Your task to perform on an android device: turn vacation reply on in the gmail app Image 0: 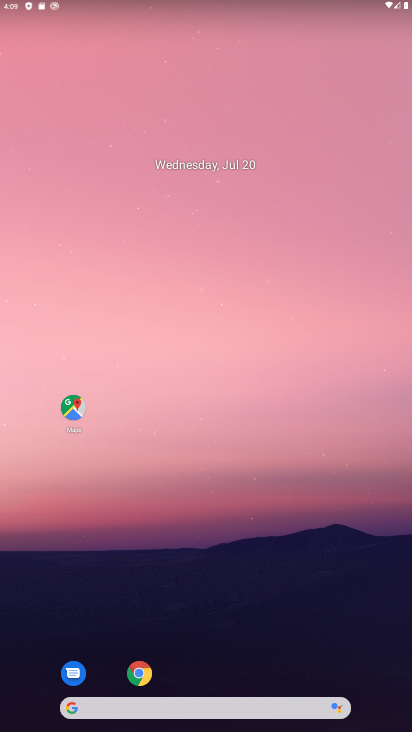
Step 0: drag from (214, 533) to (175, 127)
Your task to perform on an android device: turn vacation reply on in the gmail app Image 1: 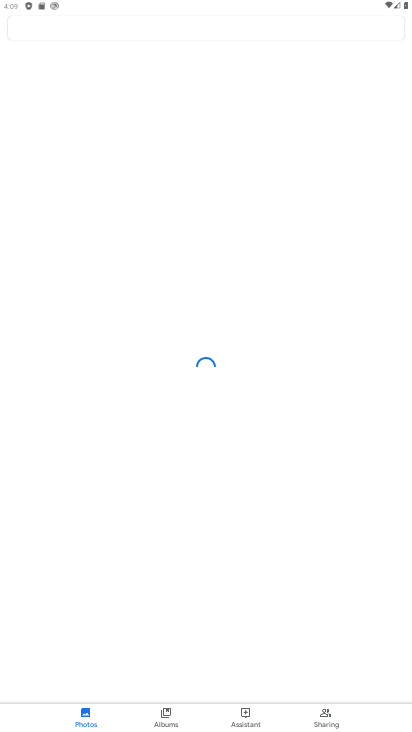
Step 1: press home button
Your task to perform on an android device: turn vacation reply on in the gmail app Image 2: 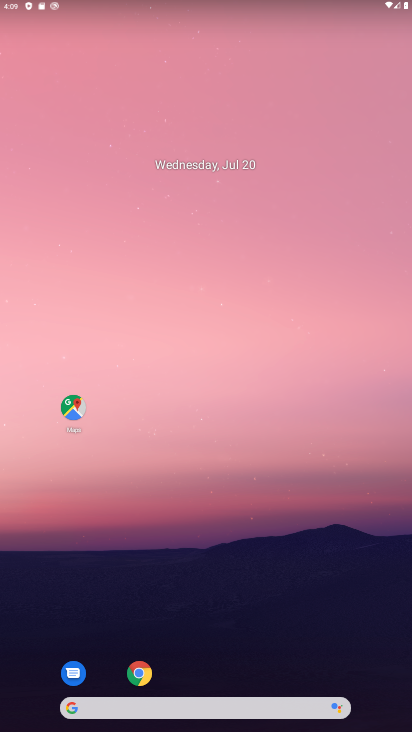
Step 2: drag from (338, 618) to (304, 172)
Your task to perform on an android device: turn vacation reply on in the gmail app Image 3: 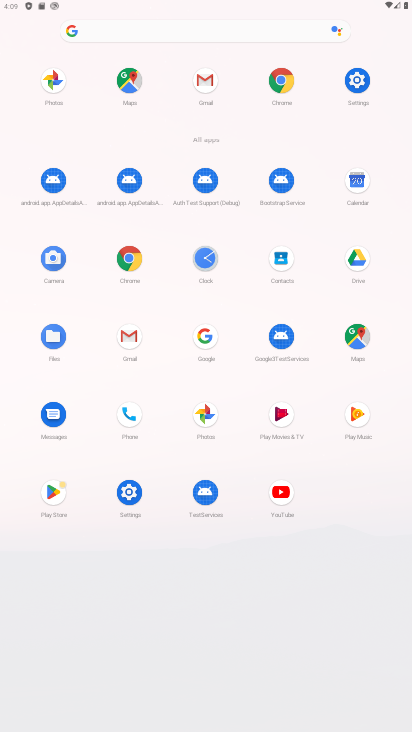
Step 3: click (136, 341)
Your task to perform on an android device: turn vacation reply on in the gmail app Image 4: 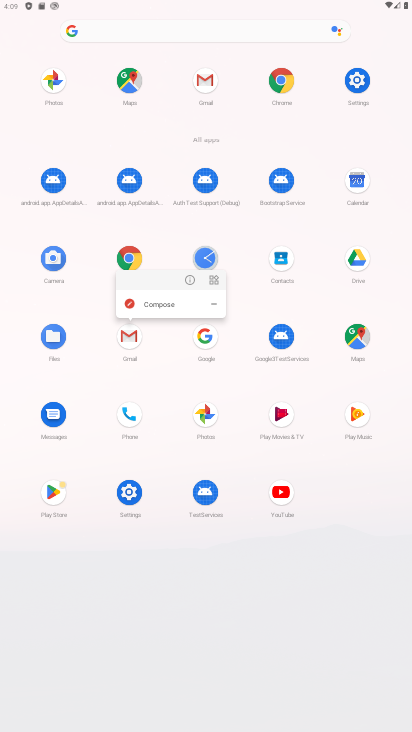
Step 4: click (130, 330)
Your task to perform on an android device: turn vacation reply on in the gmail app Image 5: 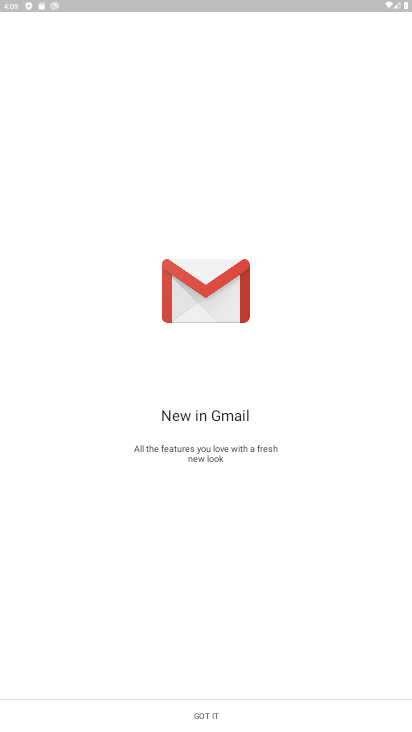
Step 5: click (208, 706)
Your task to perform on an android device: turn vacation reply on in the gmail app Image 6: 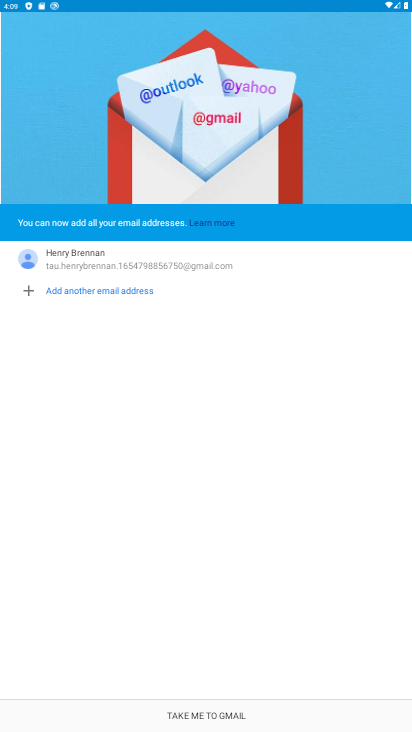
Step 6: click (241, 716)
Your task to perform on an android device: turn vacation reply on in the gmail app Image 7: 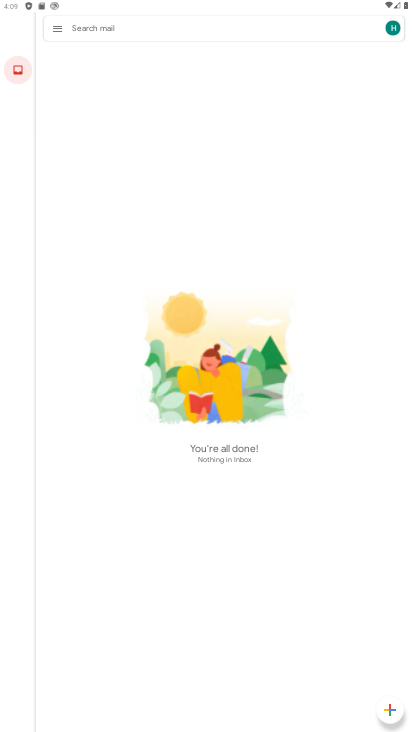
Step 7: click (51, 35)
Your task to perform on an android device: turn vacation reply on in the gmail app Image 8: 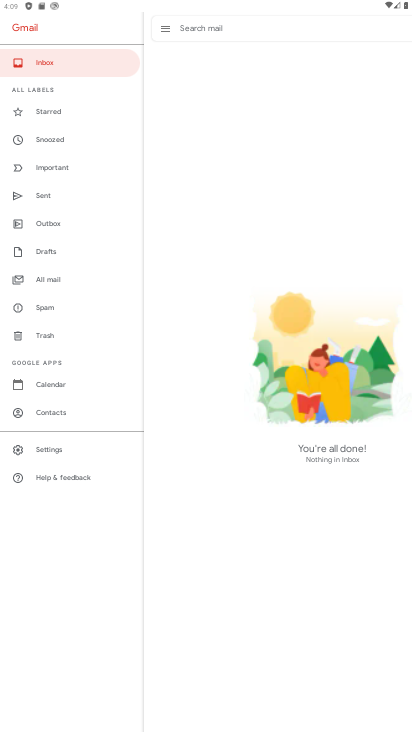
Step 8: click (43, 443)
Your task to perform on an android device: turn vacation reply on in the gmail app Image 9: 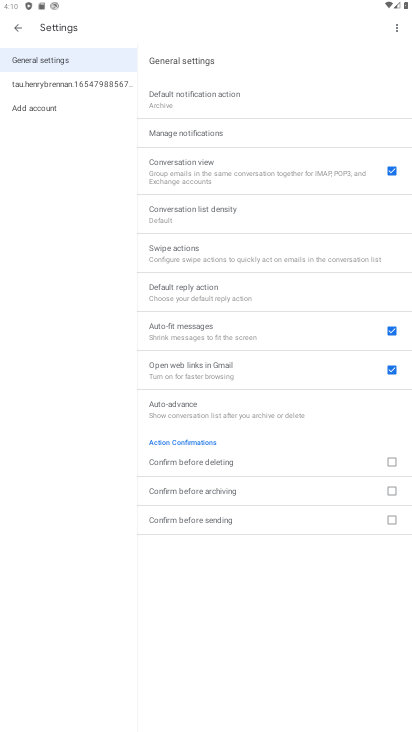
Step 9: drag from (204, 122) to (208, 352)
Your task to perform on an android device: turn vacation reply on in the gmail app Image 10: 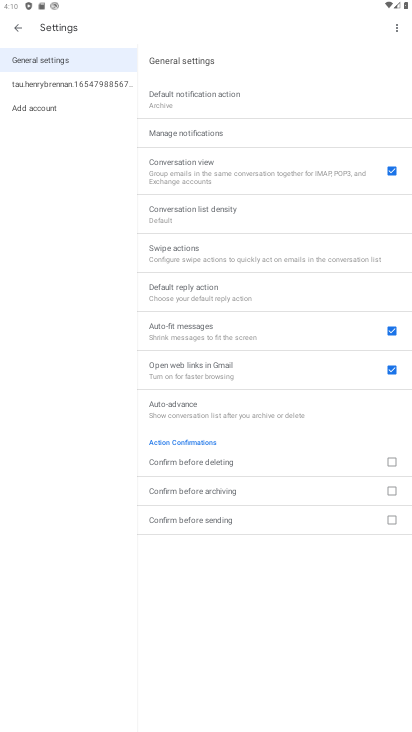
Step 10: click (51, 75)
Your task to perform on an android device: turn vacation reply on in the gmail app Image 11: 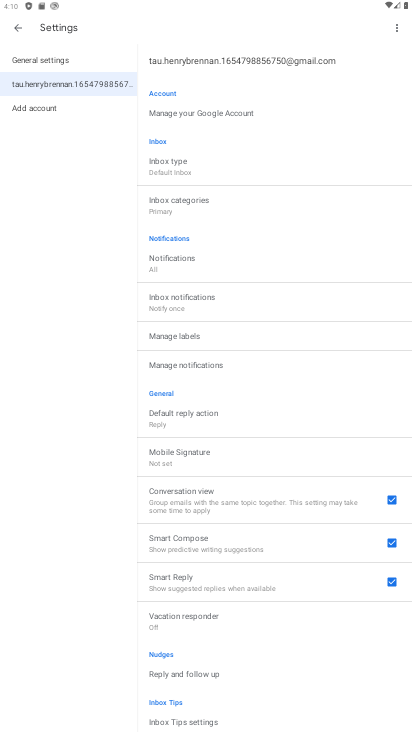
Step 11: click (192, 607)
Your task to perform on an android device: turn vacation reply on in the gmail app Image 12: 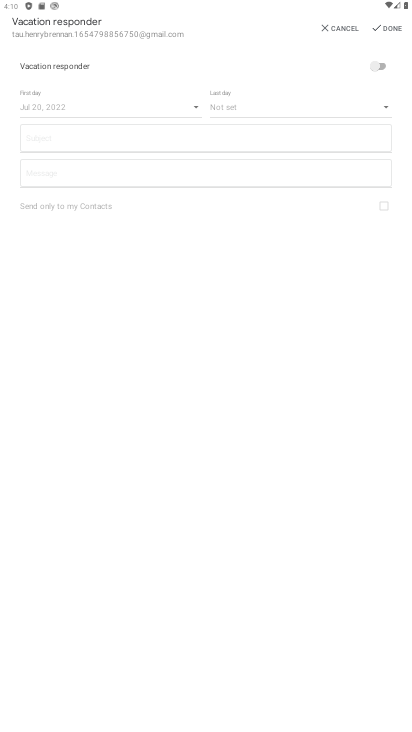
Step 12: click (382, 62)
Your task to perform on an android device: turn vacation reply on in the gmail app Image 13: 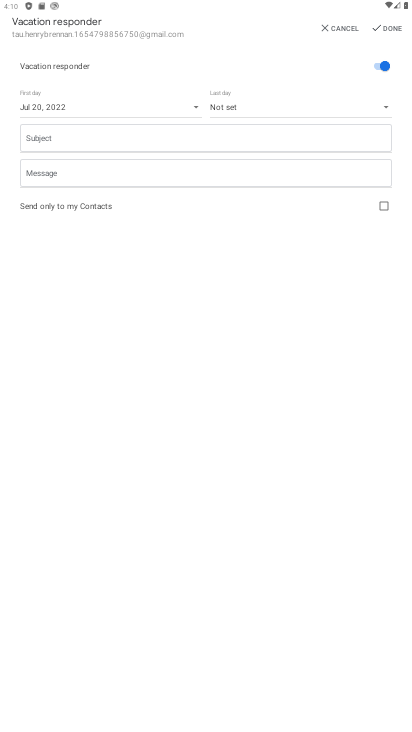
Step 13: click (396, 26)
Your task to perform on an android device: turn vacation reply on in the gmail app Image 14: 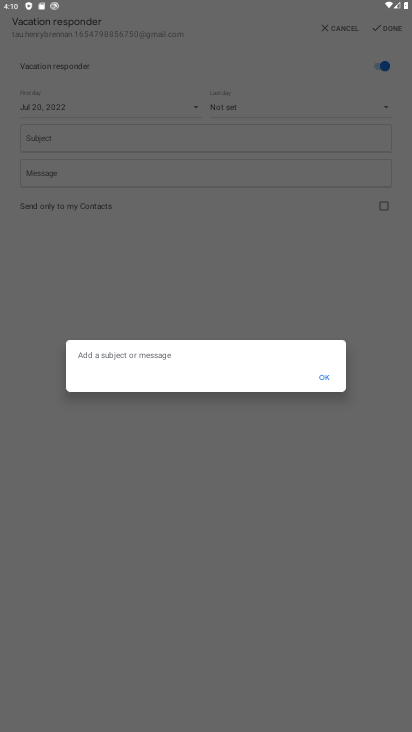
Step 14: click (325, 373)
Your task to perform on an android device: turn vacation reply on in the gmail app Image 15: 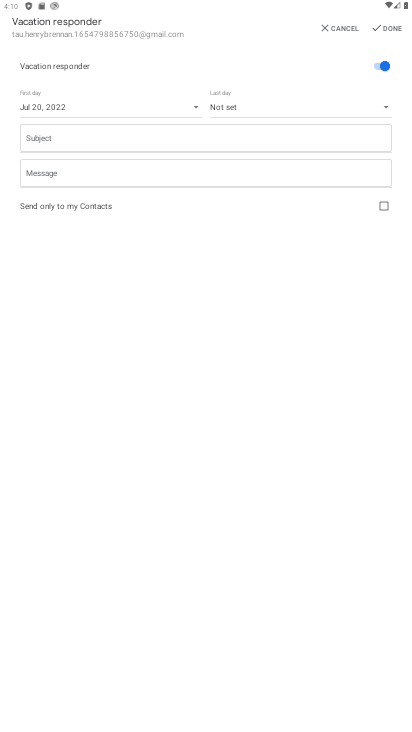
Step 15: task complete